Your task to perform on an android device: make emails show in primary in the gmail app Image 0: 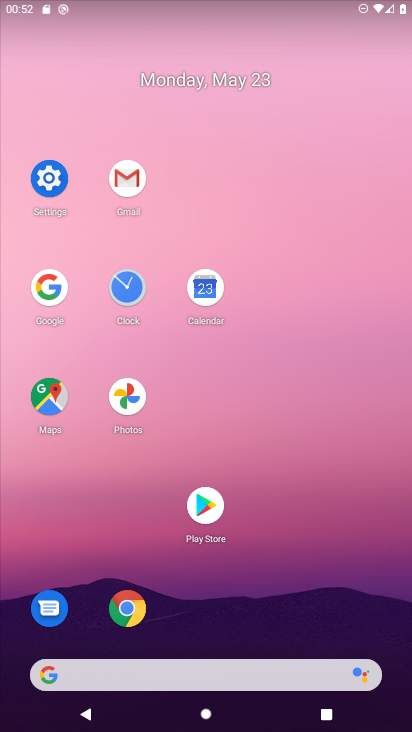
Step 0: click (131, 177)
Your task to perform on an android device: make emails show in primary in the gmail app Image 1: 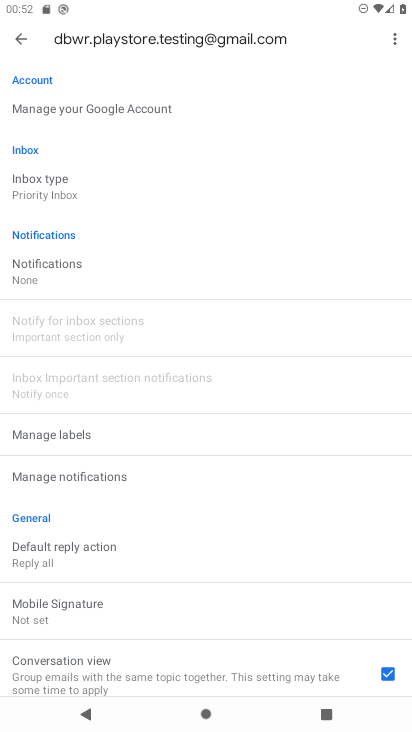
Step 1: click (31, 184)
Your task to perform on an android device: make emails show in primary in the gmail app Image 2: 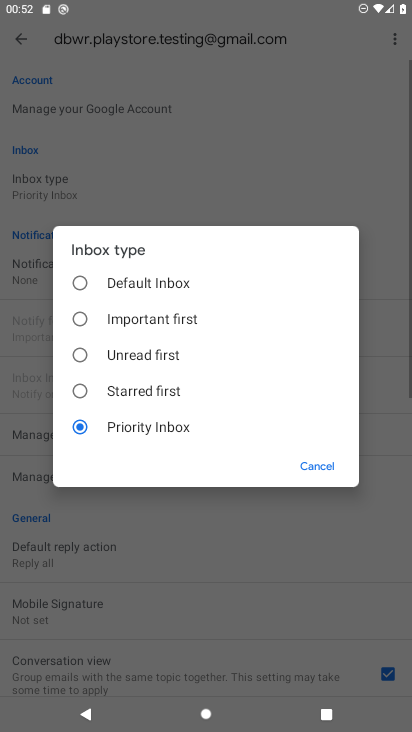
Step 2: click (114, 271)
Your task to perform on an android device: make emails show in primary in the gmail app Image 3: 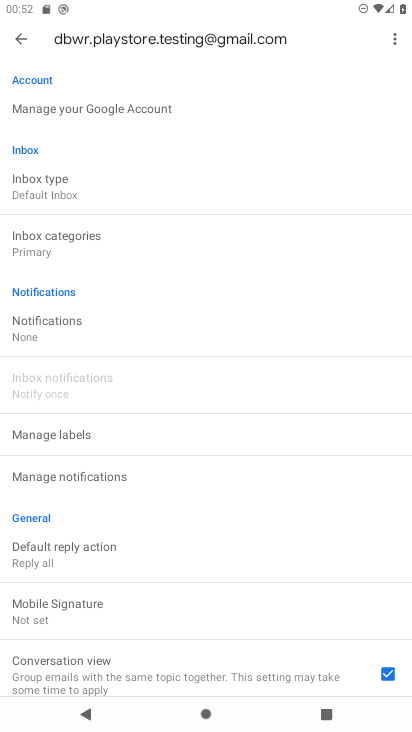
Step 3: task complete